Your task to perform on an android device: Open calendar and show me the first week of next month Image 0: 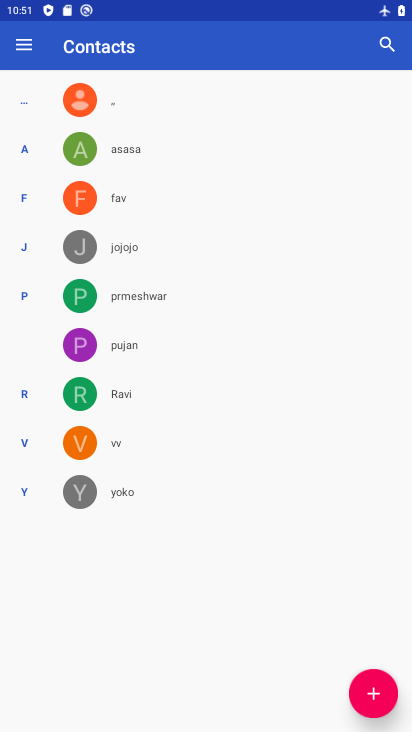
Step 0: press home button
Your task to perform on an android device: Open calendar and show me the first week of next month Image 1: 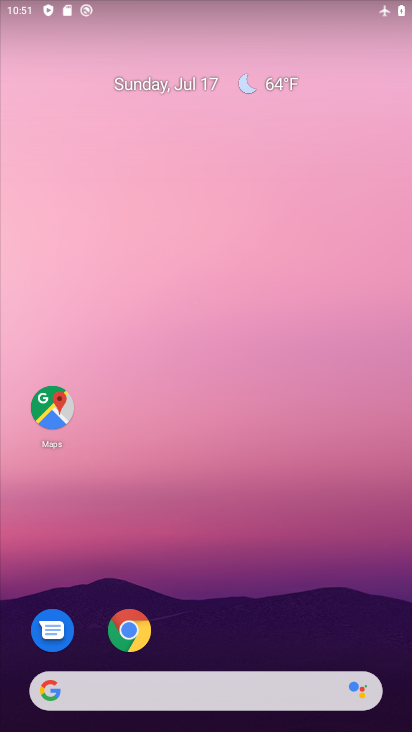
Step 1: drag from (345, 631) to (278, 103)
Your task to perform on an android device: Open calendar and show me the first week of next month Image 2: 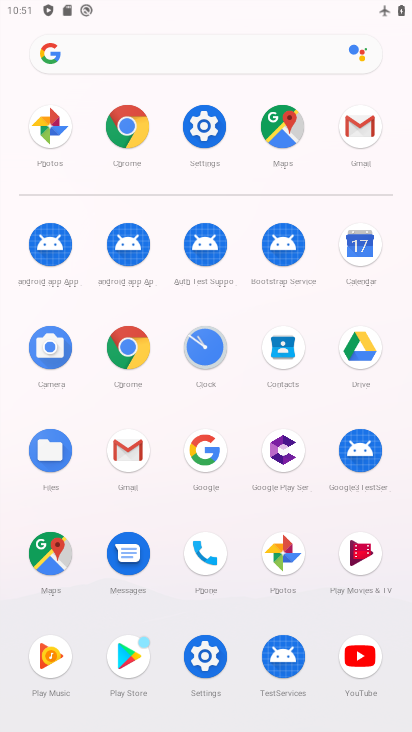
Step 2: click (359, 250)
Your task to perform on an android device: Open calendar and show me the first week of next month Image 3: 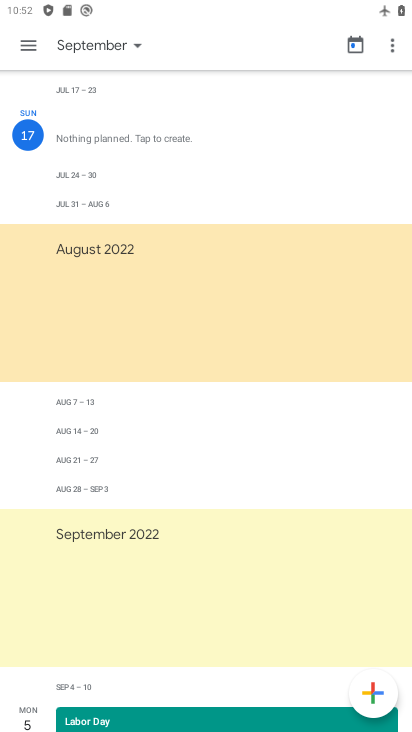
Step 3: click (40, 45)
Your task to perform on an android device: Open calendar and show me the first week of next month Image 4: 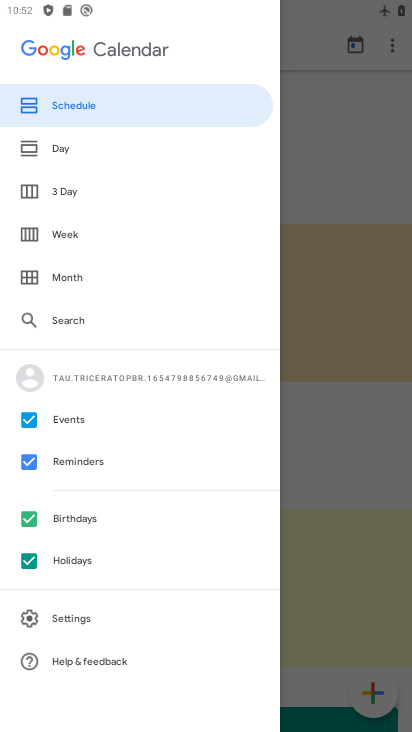
Step 4: click (68, 231)
Your task to perform on an android device: Open calendar and show me the first week of next month Image 5: 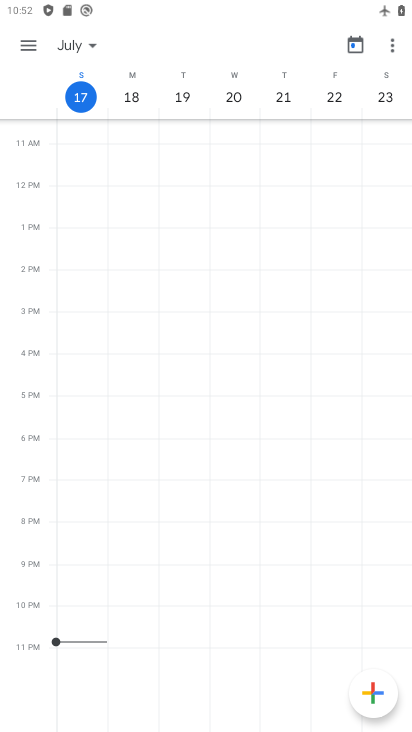
Step 5: click (90, 42)
Your task to perform on an android device: Open calendar and show me the first week of next month Image 6: 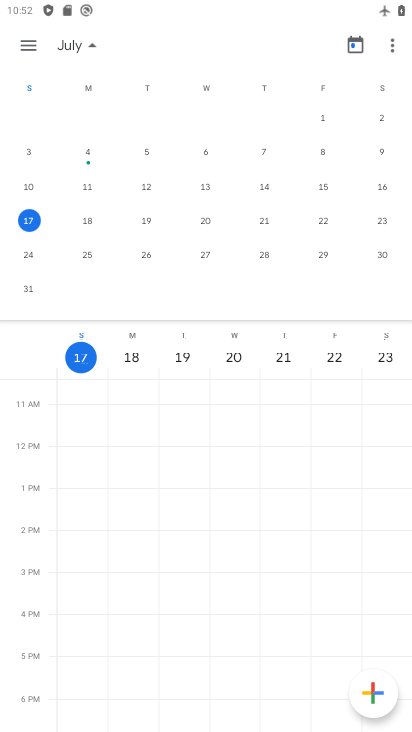
Step 6: drag from (381, 210) to (84, 200)
Your task to perform on an android device: Open calendar and show me the first week of next month Image 7: 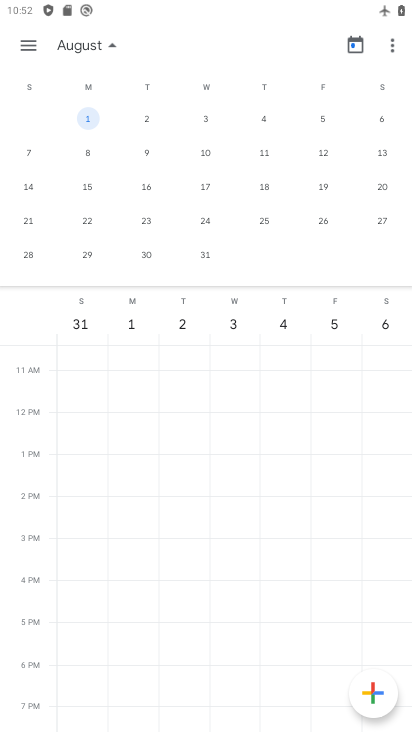
Step 7: click (21, 150)
Your task to perform on an android device: Open calendar and show me the first week of next month Image 8: 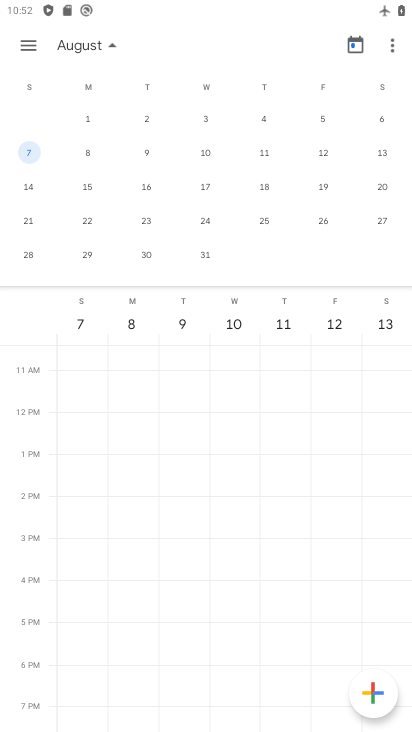
Step 8: task complete